Your task to perform on an android device: set the timer Image 0: 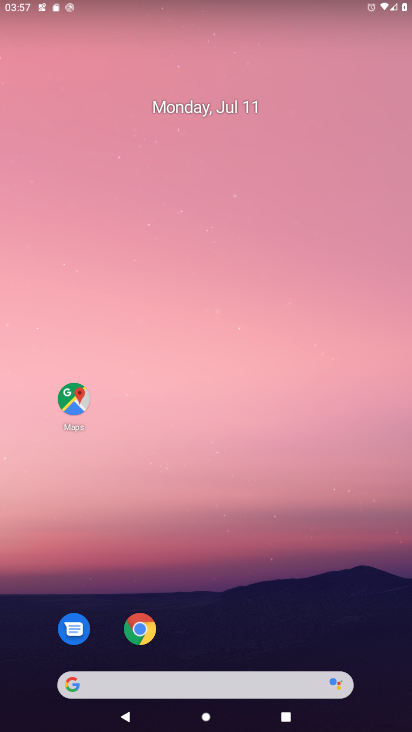
Step 0: drag from (223, 584) to (384, 12)
Your task to perform on an android device: set the timer Image 1: 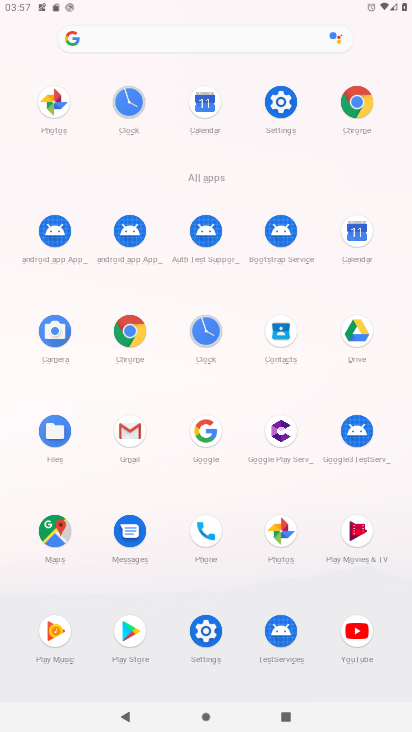
Step 1: click (213, 324)
Your task to perform on an android device: set the timer Image 2: 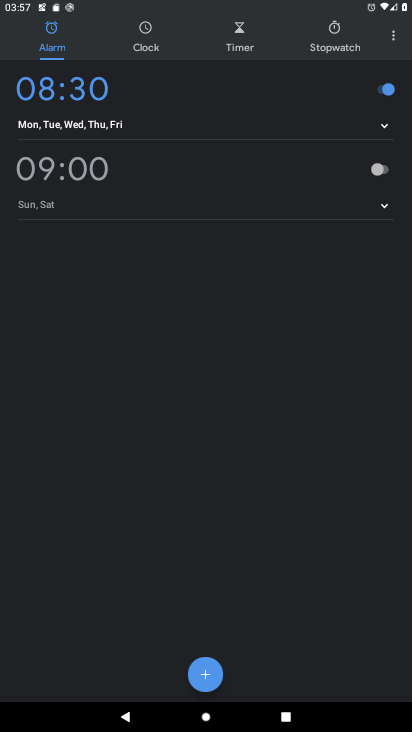
Step 2: click (241, 45)
Your task to perform on an android device: set the timer Image 3: 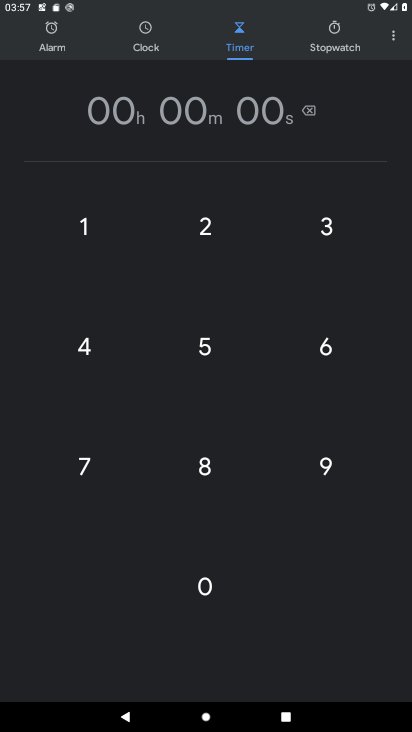
Step 3: click (207, 227)
Your task to perform on an android device: set the timer Image 4: 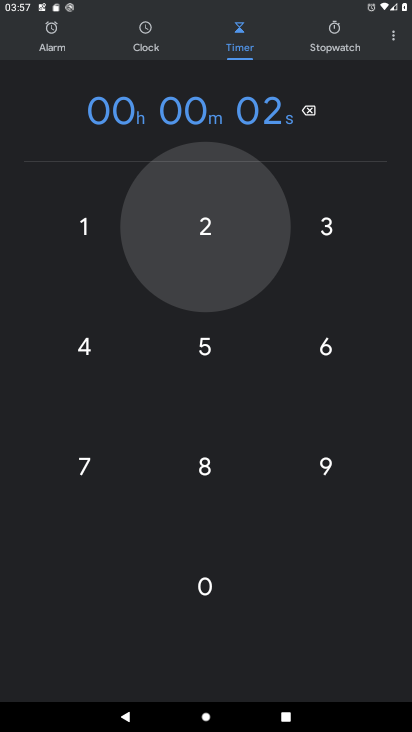
Step 4: click (335, 231)
Your task to perform on an android device: set the timer Image 5: 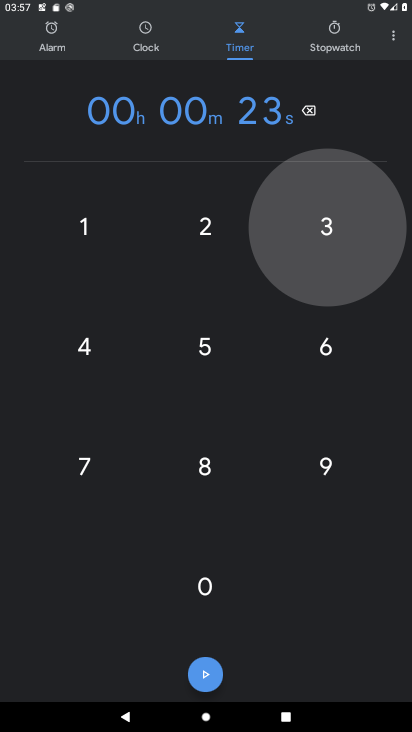
Step 5: click (195, 346)
Your task to perform on an android device: set the timer Image 6: 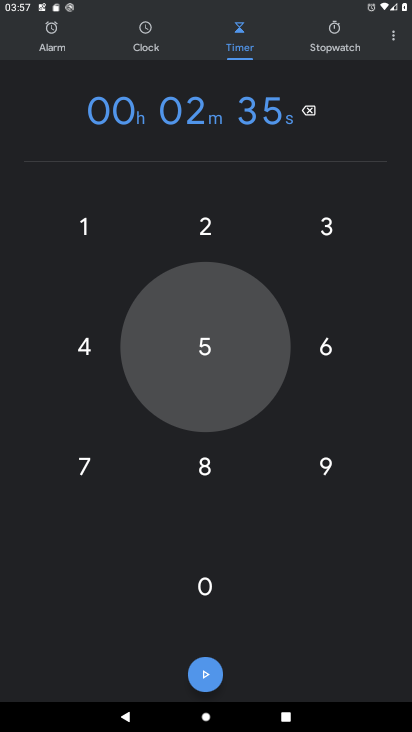
Step 6: click (345, 350)
Your task to perform on an android device: set the timer Image 7: 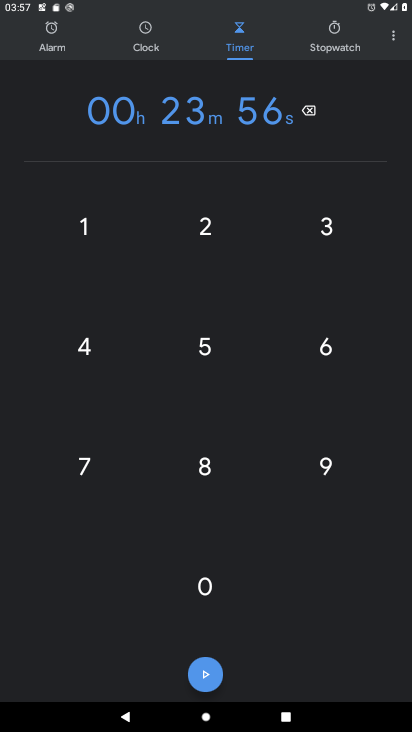
Step 7: click (82, 355)
Your task to perform on an android device: set the timer Image 8: 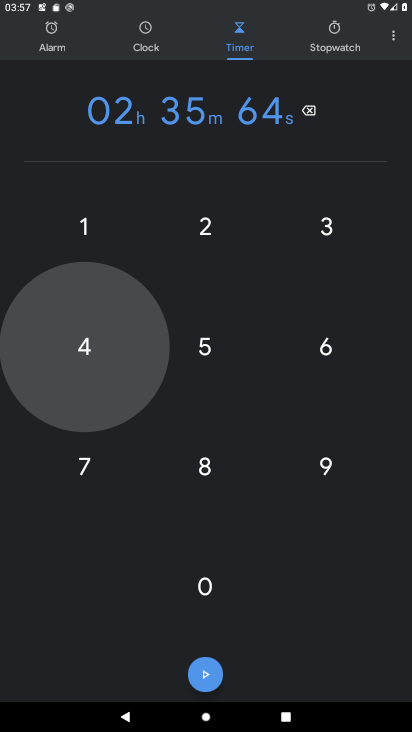
Step 8: click (202, 214)
Your task to perform on an android device: set the timer Image 9: 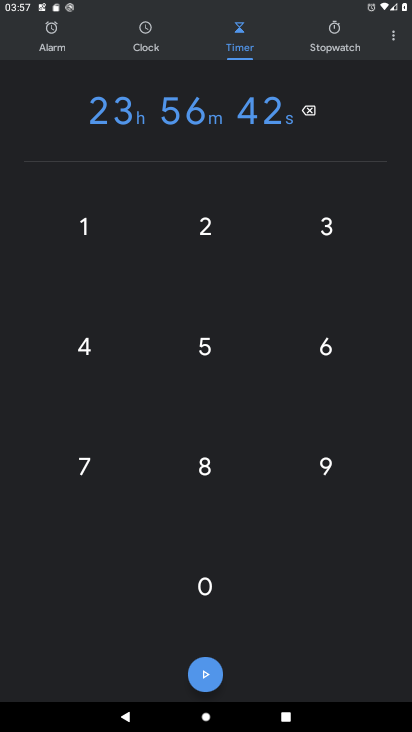
Step 9: task complete